Your task to perform on an android device: set the stopwatch Image 0: 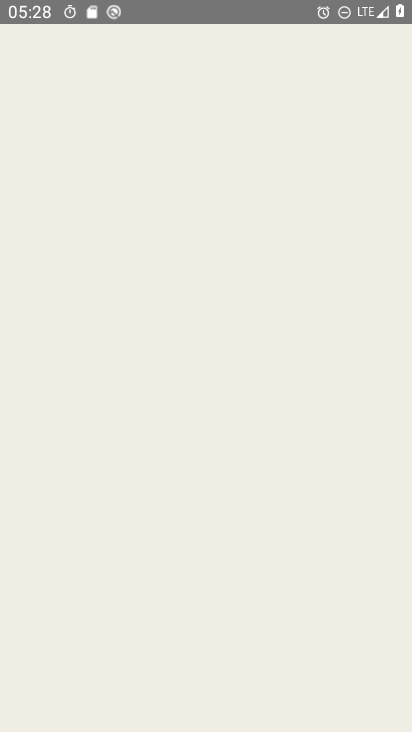
Step 0: press home button
Your task to perform on an android device: set the stopwatch Image 1: 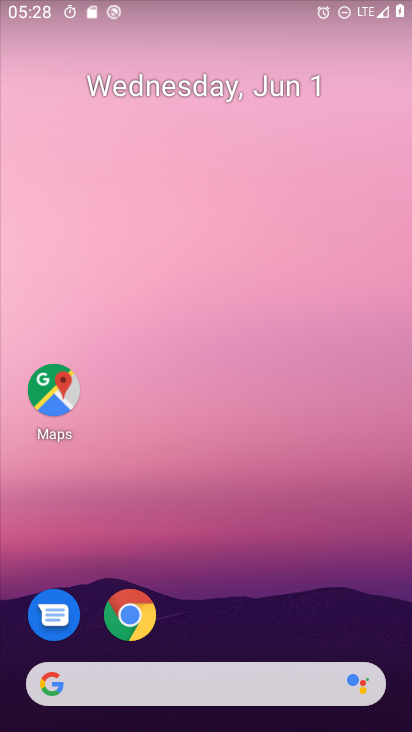
Step 1: drag from (308, 635) to (168, 13)
Your task to perform on an android device: set the stopwatch Image 2: 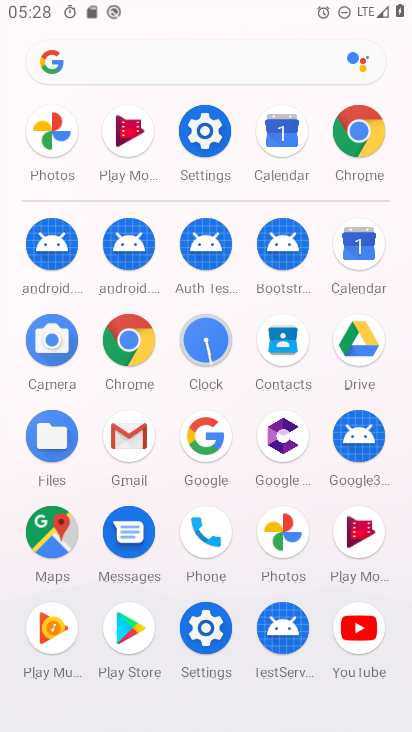
Step 2: click (185, 325)
Your task to perform on an android device: set the stopwatch Image 3: 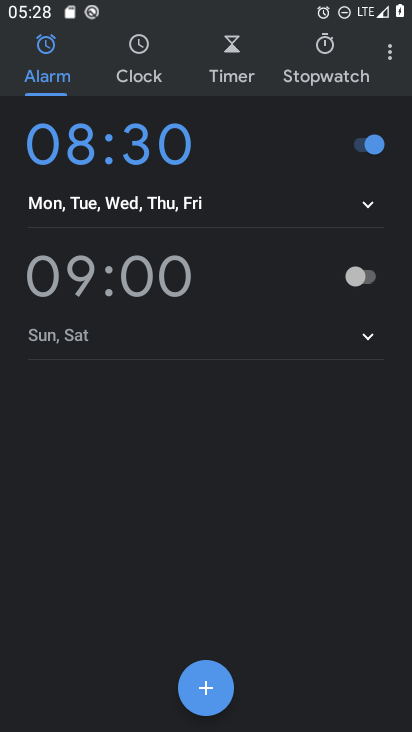
Step 3: click (323, 58)
Your task to perform on an android device: set the stopwatch Image 4: 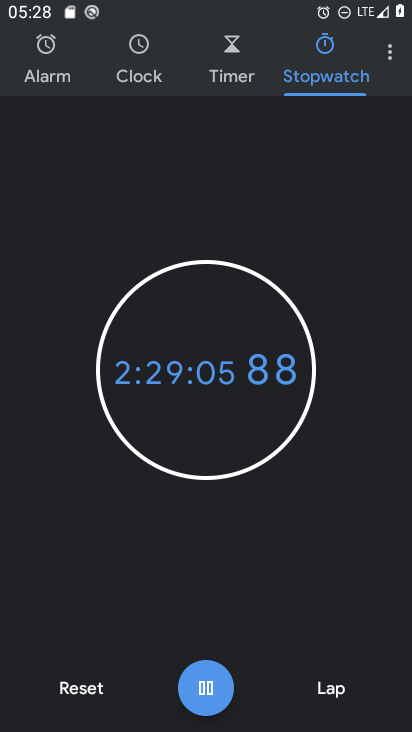
Step 4: task complete